Your task to perform on an android device: Open Yahoo.com Image 0: 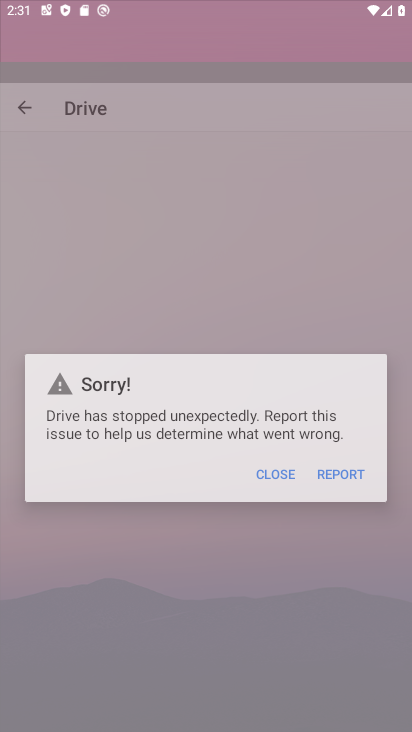
Step 0: press home button
Your task to perform on an android device: Open Yahoo.com Image 1: 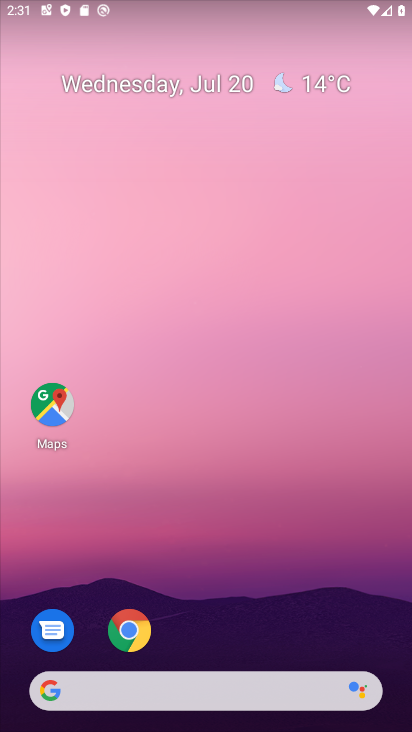
Step 1: click (138, 622)
Your task to perform on an android device: Open Yahoo.com Image 2: 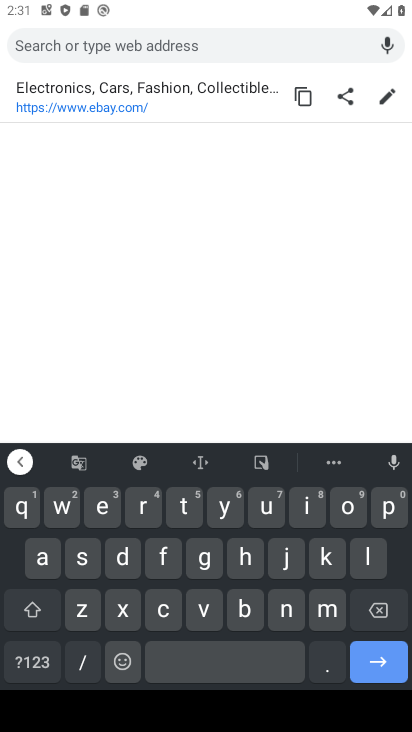
Step 2: press back button
Your task to perform on an android device: Open Yahoo.com Image 3: 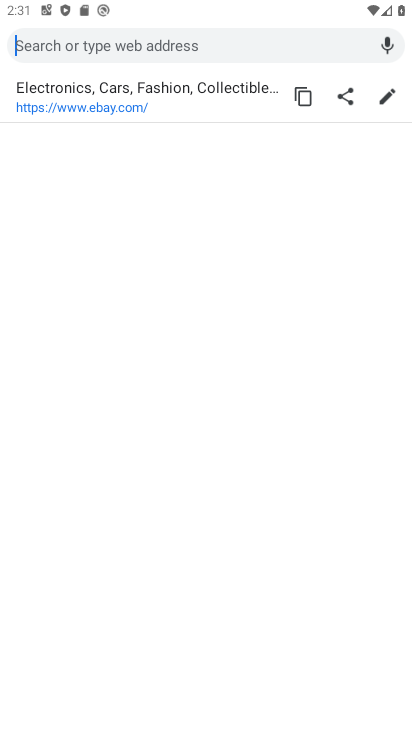
Step 3: press back button
Your task to perform on an android device: Open Yahoo.com Image 4: 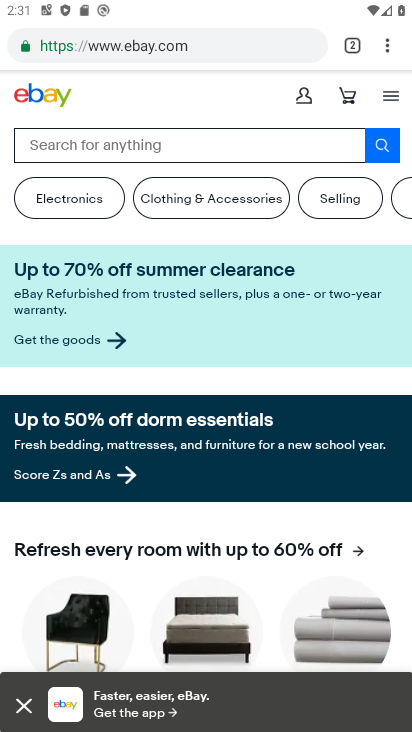
Step 4: click (341, 53)
Your task to perform on an android device: Open Yahoo.com Image 5: 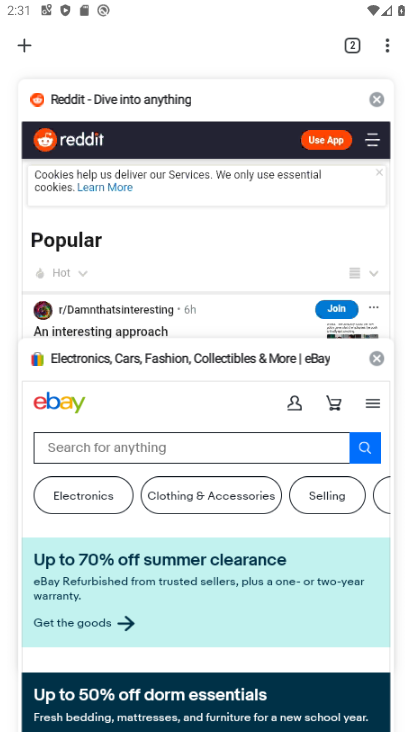
Step 5: click (32, 61)
Your task to perform on an android device: Open Yahoo.com Image 6: 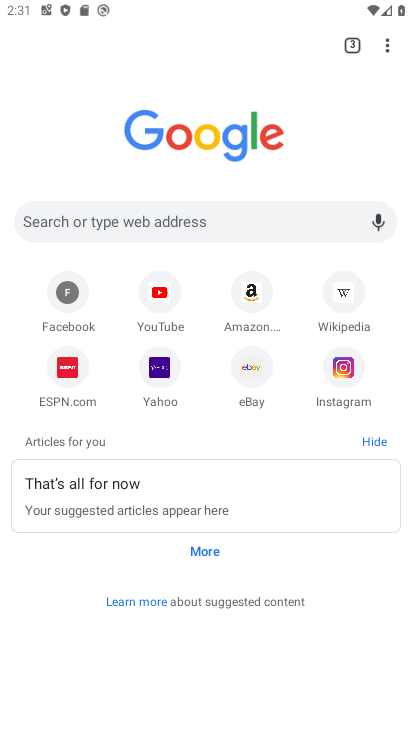
Step 6: click (168, 377)
Your task to perform on an android device: Open Yahoo.com Image 7: 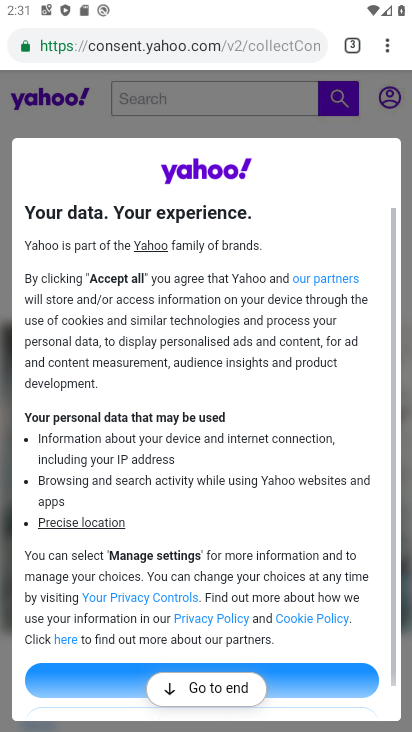
Step 7: click (261, 671)
Your task to perform on an android device: Open Yahoo.com Image 8: 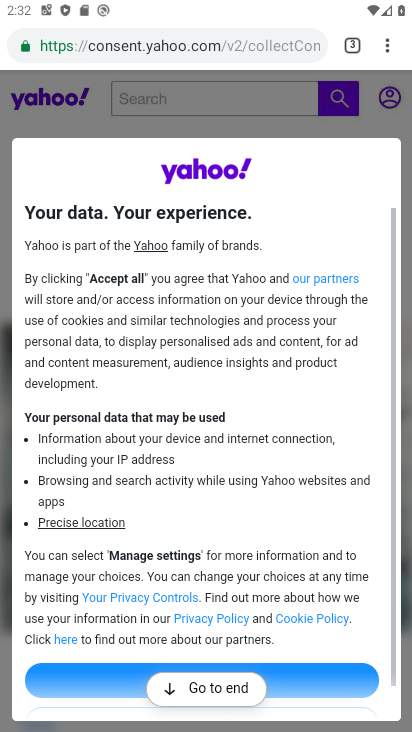
Step 8: task complete